Your task to perform on an android device: Open sound settings Image 0: 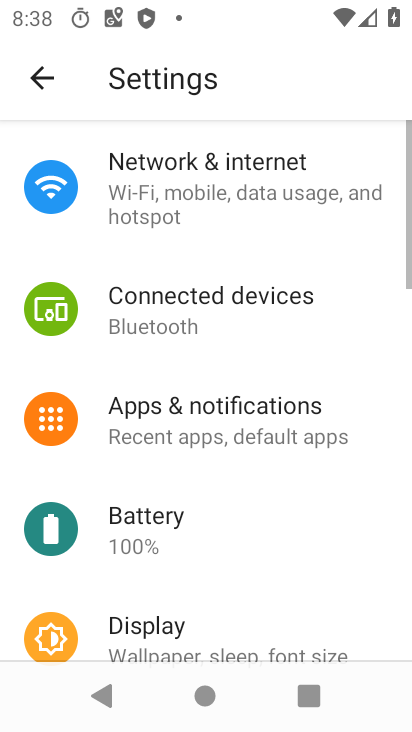
Step 0: press home button
Your task to perform on an android device: Open sound settings Image 1: 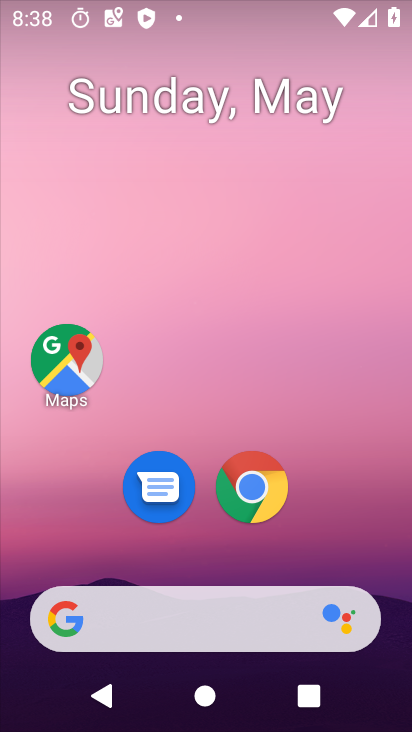
Step 1: drag from (101, 422) to (258, 148)
Your task to perform on an android device: Open sound settings Image 2: 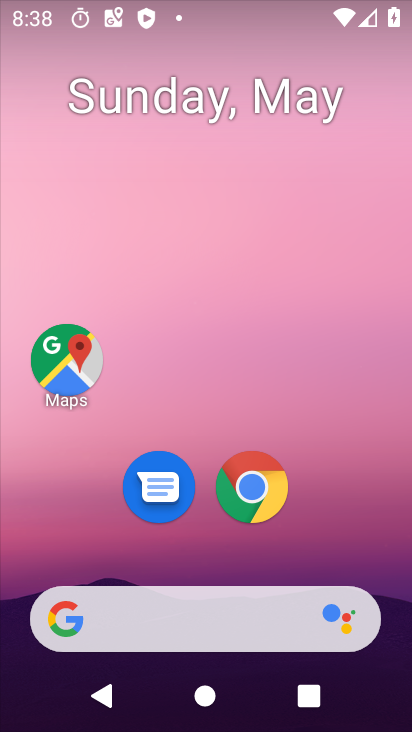
Step 2: drag from (13, 594) to (233, 92)
Your task to perform on an android device: Open sound settings Image 3: 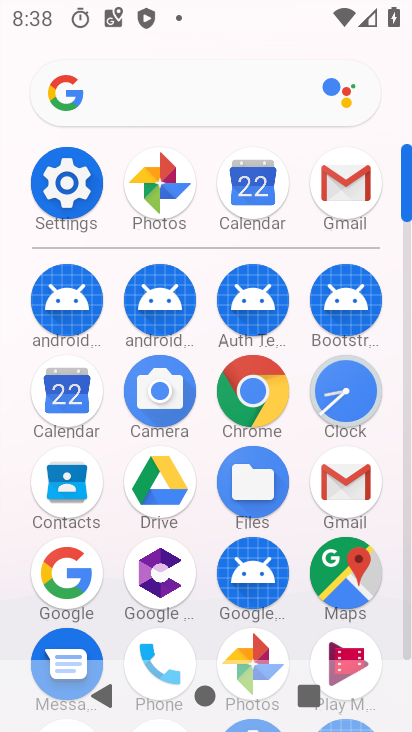
Step 3: click (63, 181)
Your task to perform on an android device: Open sound settings Image 4: 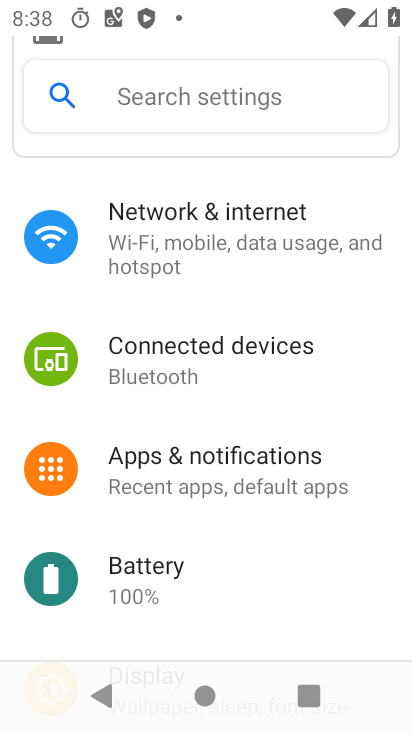
Step 4: drag from (48, 559) to (244, 167)
Your task to perform on an android device: Open sound settings Image 5: 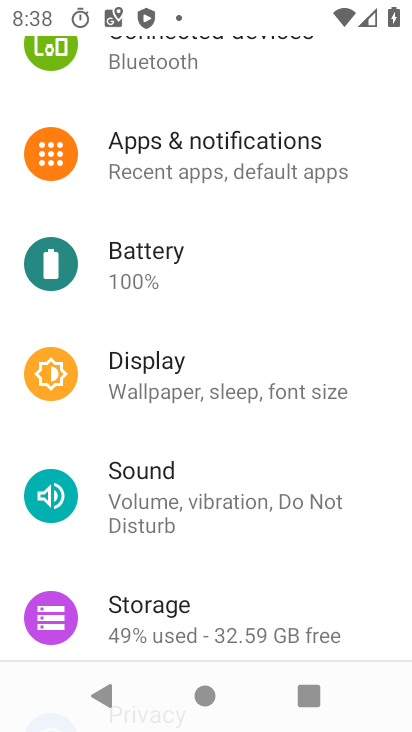
Step 5: click (180, 486)
Your task to perform on an android device: Open sound settings Image 6: 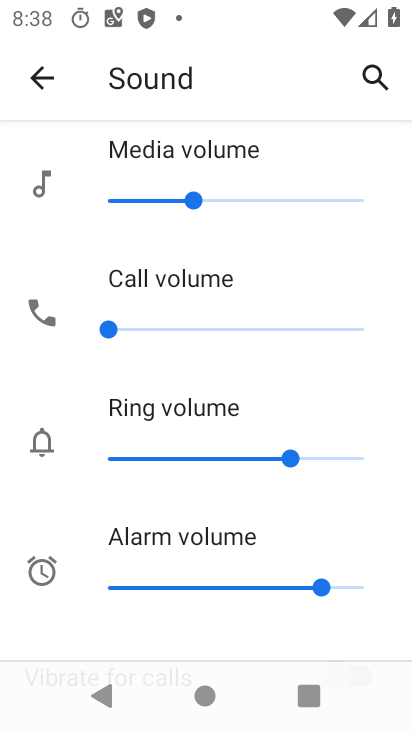
Step 6: task complete